Your task to perform on an android device: change alarm snooze length Image 0: 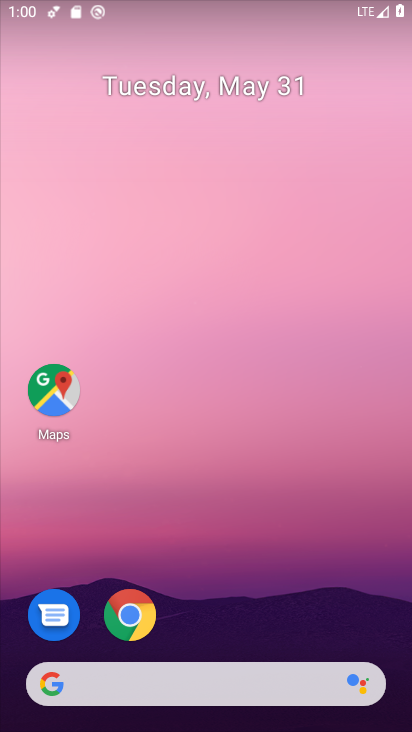
Step 0: drag from (201, 628) to (73, 1)
Your task to perform on an android device: change alarm snooze length Image 1: 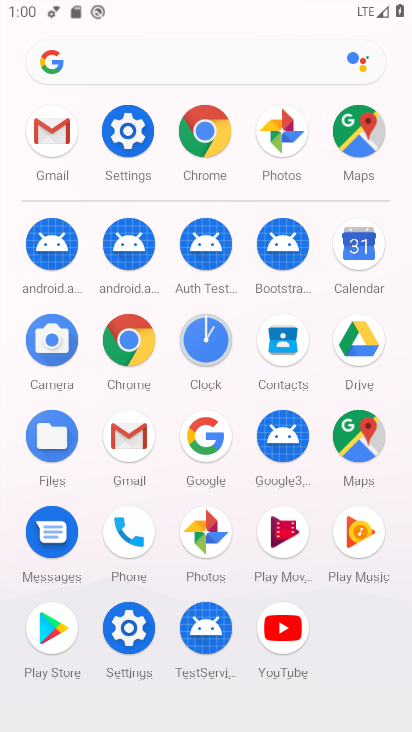
Step 1: click (211, 350)
Your task to perform on an android device: change alarm snooze length Image 2: 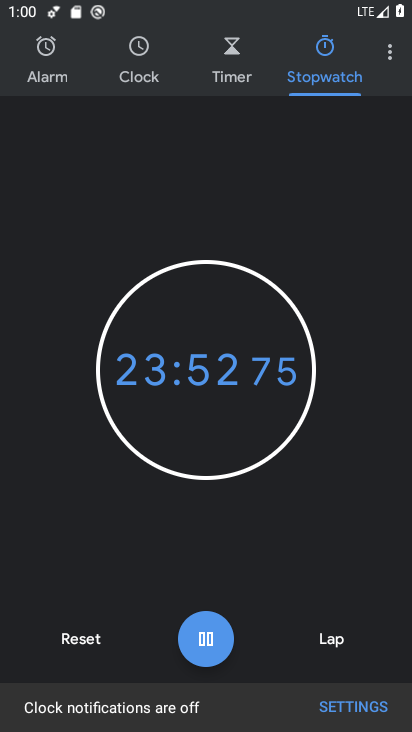
Step 2: click (392, 55)
Your task to perform on an android device: change alarm snooze length Image 3: 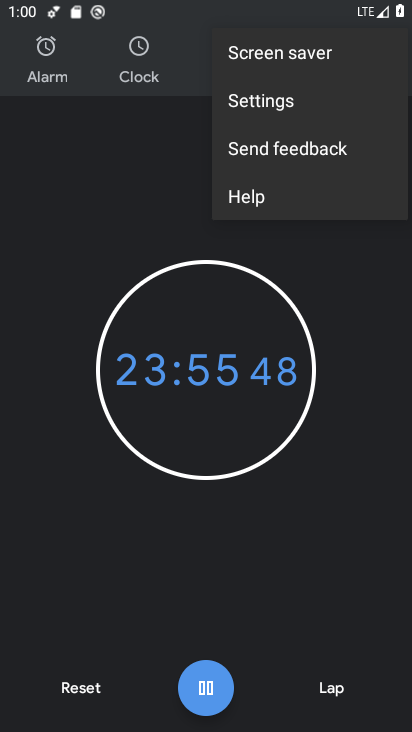
Step 3: click (273, 96)
Your task to perform on an android device: change alarm snooze length Image 4: 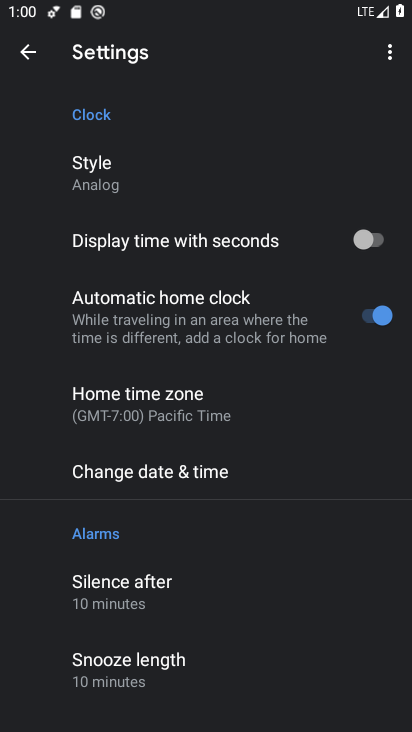
Step 4: click (145, 662)
Your task to perform on an android device: change alarm snooze length Image 5: 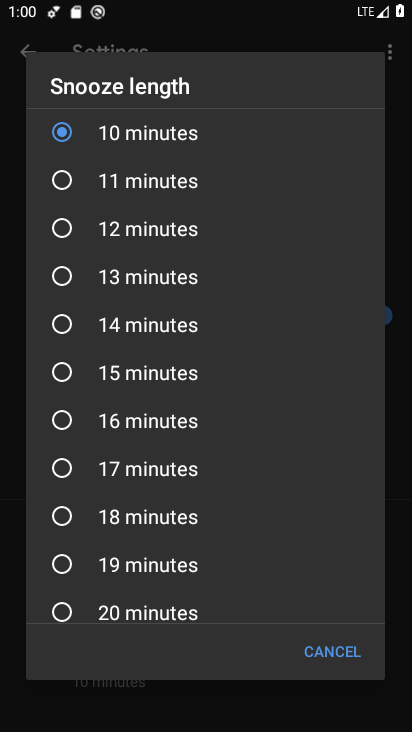
Step 5: click (70, 602)
Your task to perform on an android device: change alarm snooze length Image 6: 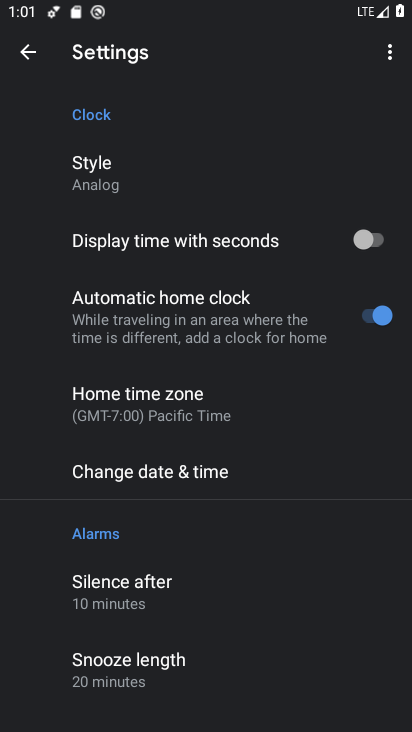
Step 6: task complete